Your task to perform on an android device: toggle airplane mode Image 0: 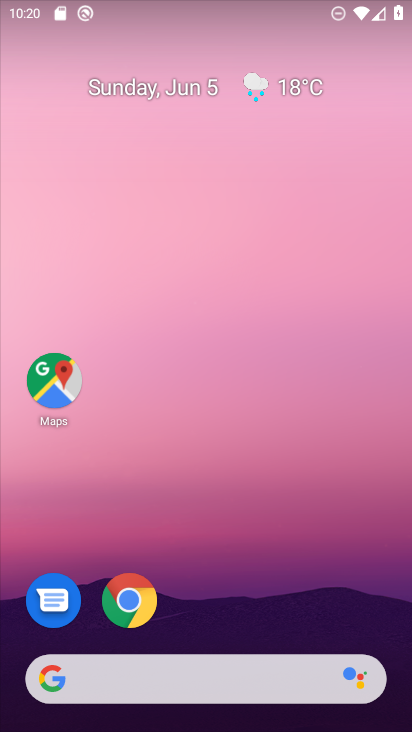
Step 0: drag from (366, 9) to (279, 587)
Your task to perform on an android device: toggle airplane mode Image 1: 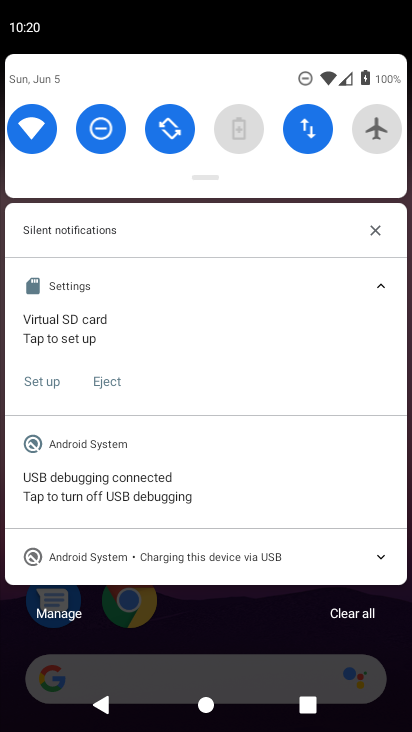
Step 1: click (387, 125)
Your task to perform on an android device: toggle airplane mode Image 2: 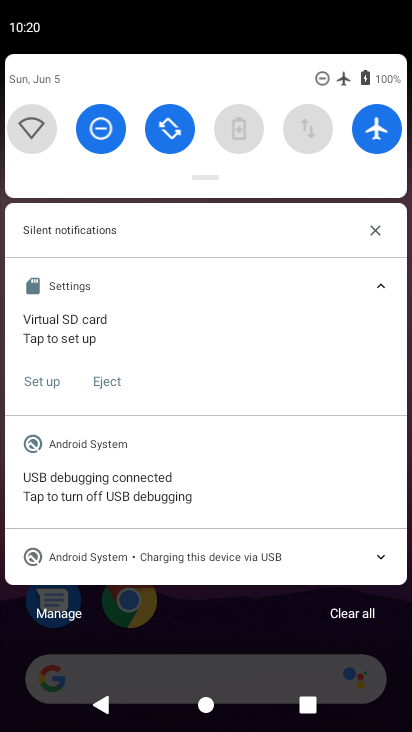
Step 2: task complete